Your task to perform on an android device: Play the last video I watched on Youtube Image 0: 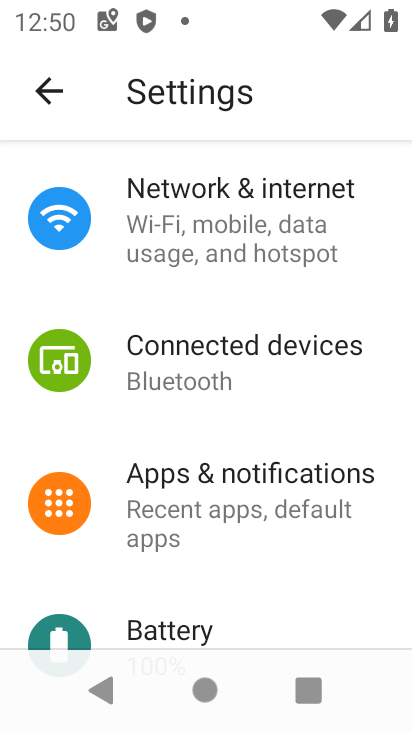
Step 0: press home button
Your task to perform on an android device: Play the last video I watched on Youtube Image 1: 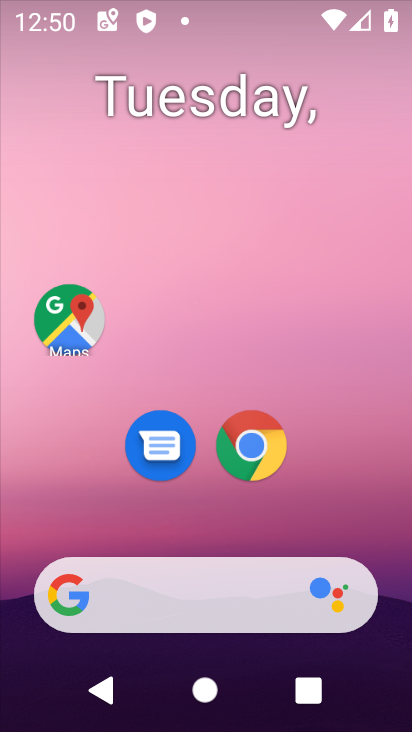
Step 1: drag from (360, 615) to (357, 106)
Your task to perform on an android device: Play the last video I watched on Youtube Image 2: 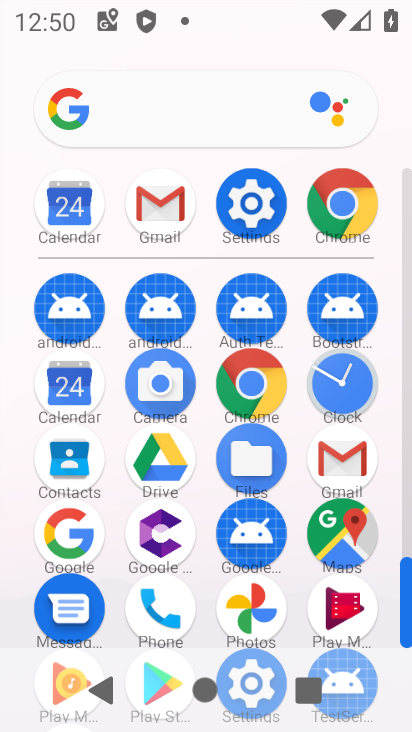
Step 2: drag from (370, 585) to (358, 228)
Your task to perform on an android device: Play the last video I watched on Youtube Image 3: 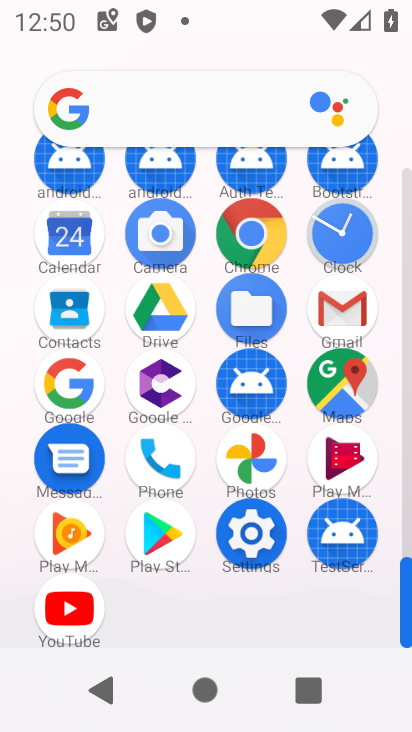
Step 3: click (43, 625)
Your task to perform on an android device: Play the last video I watched on Youtube Image 4: 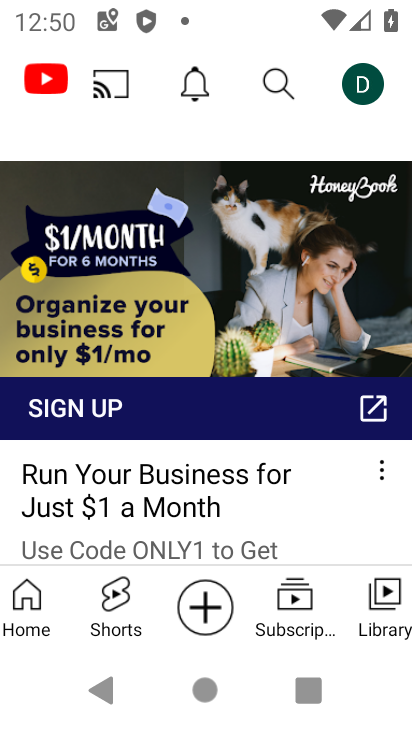
Step 4: click (362, 607)
Your task to perform on an android device: Play the last video I watched on Youtube Image 5: 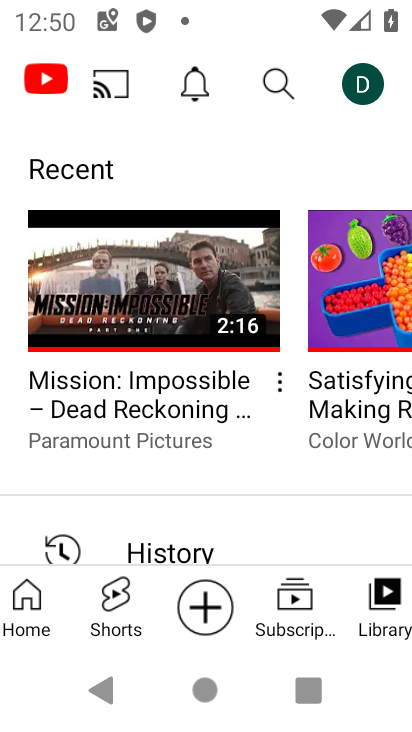
Step 5: click (136, 316)
Your task to perform on an android device: Play the last video I watched on Youtube Image 6: 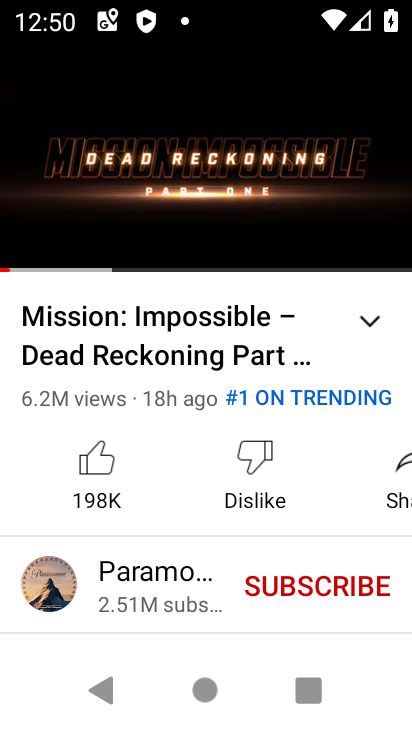
Step 6: task complete